Your task to perform on an android device: Open calendar and show me the first week of next month Image 0: 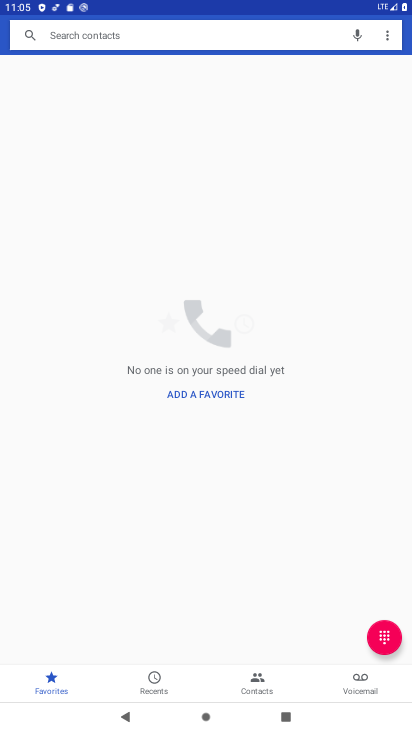
Step 0: press home button
Your task to perform on an android device: Open calendar and show me the first week of next month Image 1: 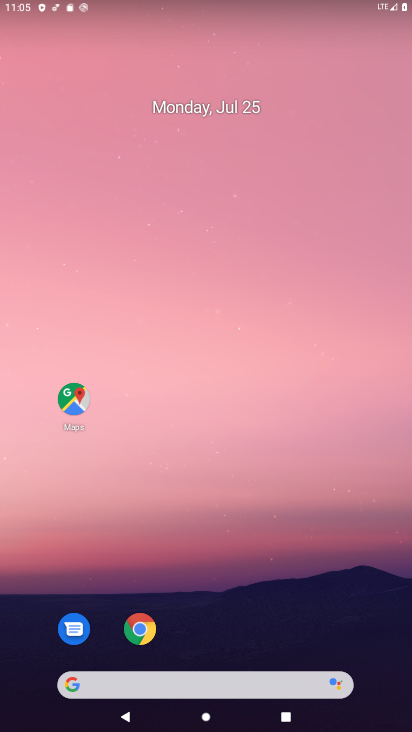
Step 1: drag from (192, 482) to (200, 188)
Your task to perform on an android device: Open calendar and show me the first week of next month Image 2: 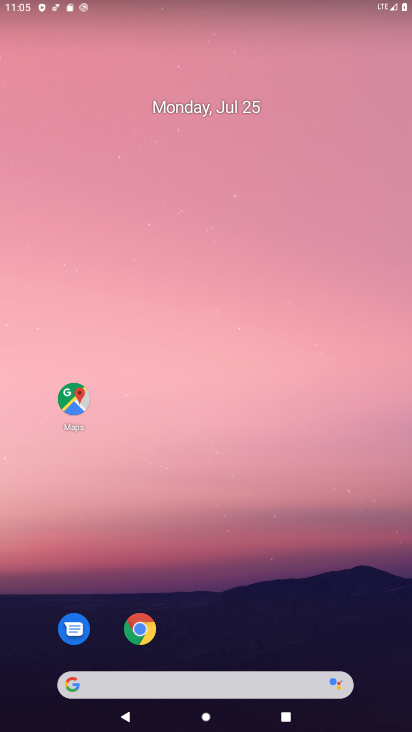
Step 2: drag from (217, 622) to (255, 125)
Your task to perform on an android device: Open calendar and show me the first week of next month Image 3: 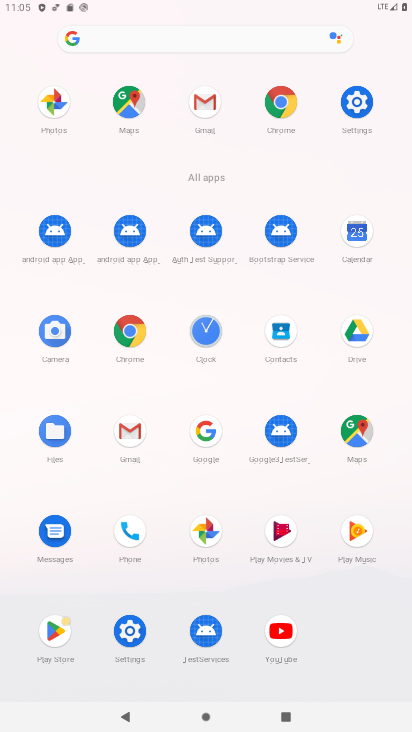
Step 3: click (351, 245)
Your task to perform on an android device: Open calendar and show me the first week of next month Image 4: 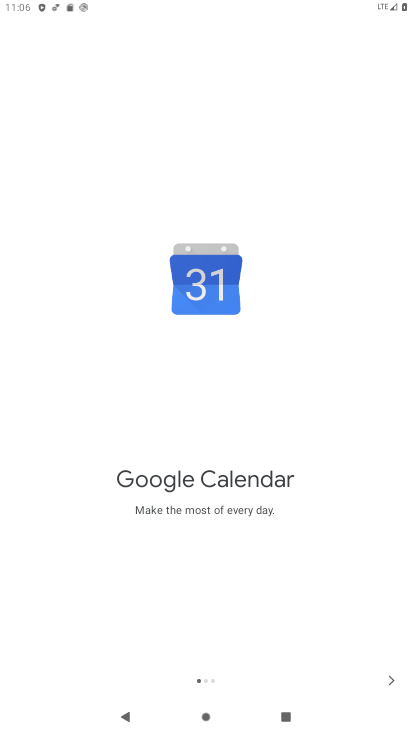
Step 4: click (385, 676)
Your task to perform on an android device: Open calendar and show me the first week of next month Image 5: 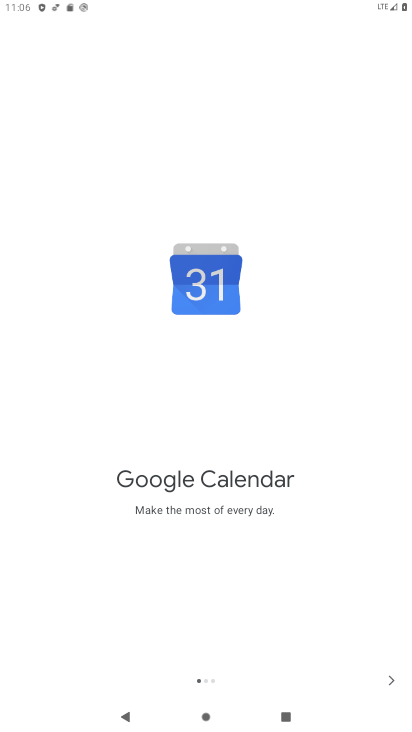
Step 5: click (385, 676)
Your task to perform on an android device: Open calendar and show me the first week of next month Image 6: 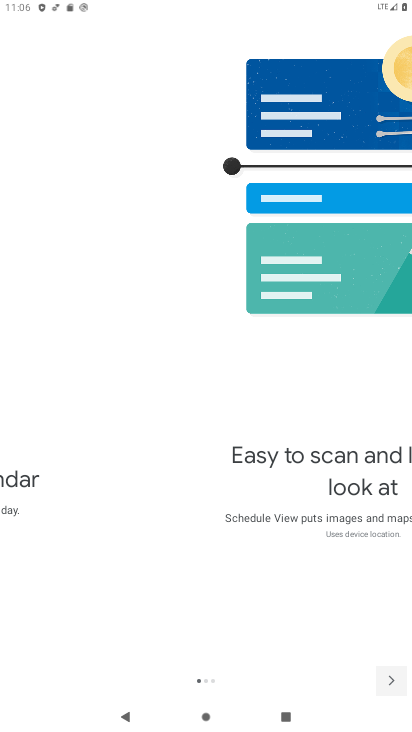
Step 6: click (386, 675)
Your task to perform on an android device: Open calendar and show me the first week of next month Image 7: 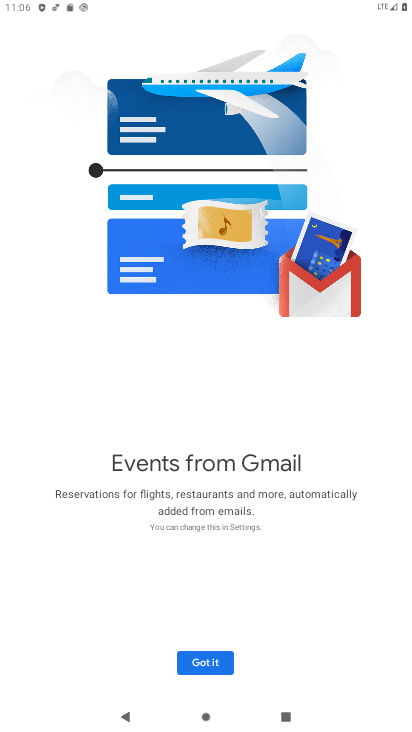
Step 7: click (206, 665)
Your task to perform on an android device: Open calendar and show me the first week of next month Image 8: 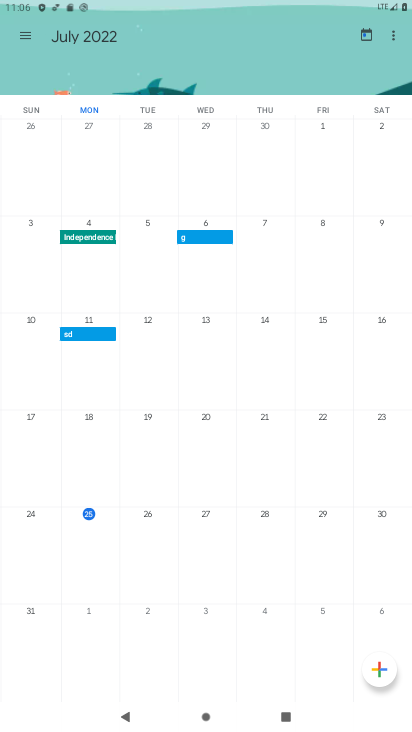
Step 8: drag from (320, 349) to (6, 73)
Your task to perform on an android device: Open calendar and show me the first week of next month Image 9: 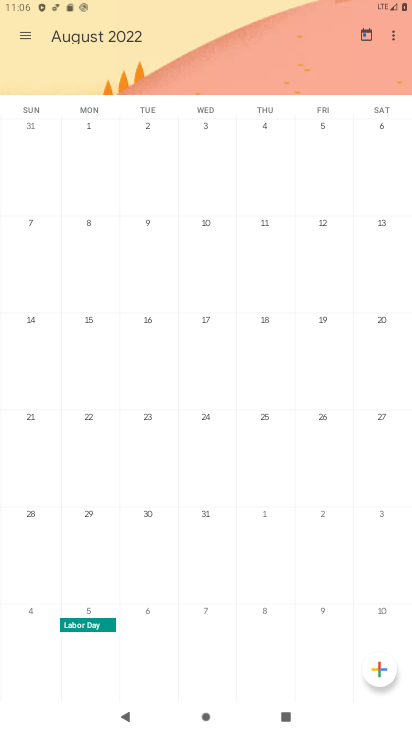
Step 9: click (79, 150)
Your task to perform on an android device: Open calendar and show me the first week of next month Image 10: 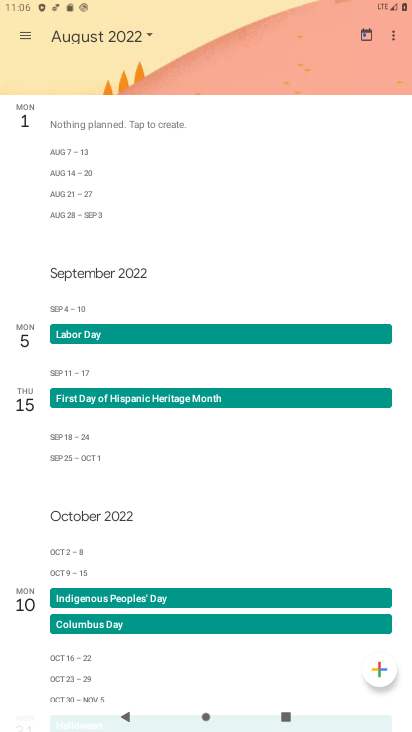
Step 10: task complete